Your task to perform on an android device: Open Chrome and go to the settings page Image 0: 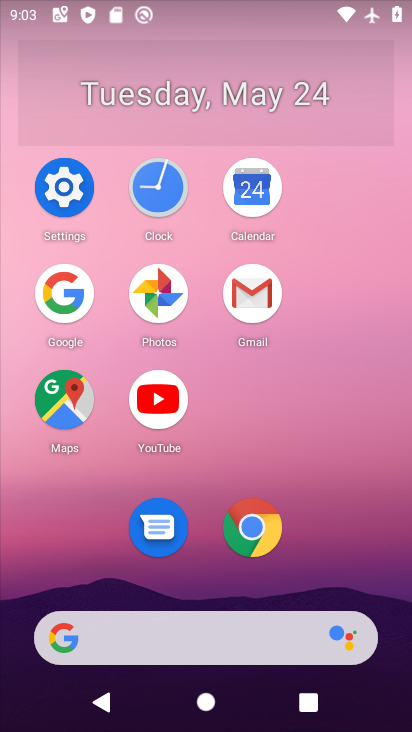
Step 0: click (249, 516)
Your task to perform on an android device: Open Chrome and go to the settings page Image 1: 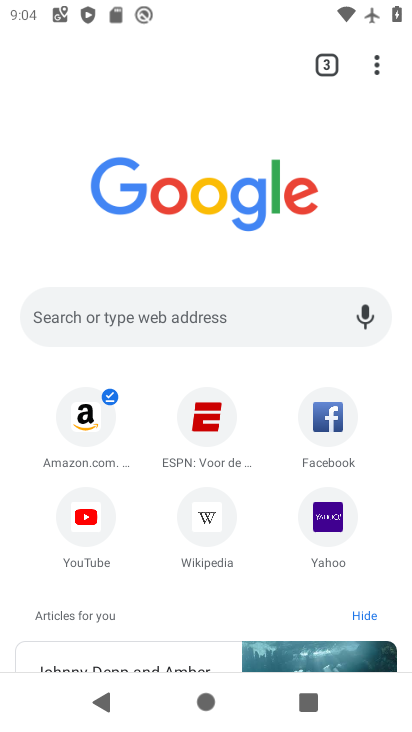
Step 1: click (390, 60)
Your task to perform on an android device: Open Chrome and go to the settings page Image 2: 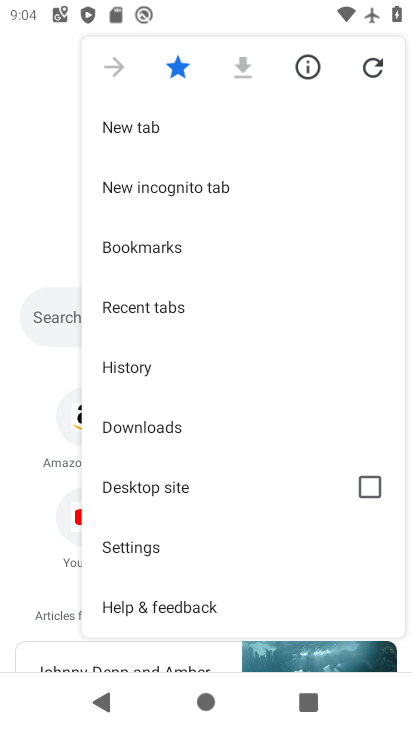
Step 2: click (233, 554)
Your task to perform on an android device: Open Chrome and go to the settings page Image 3: 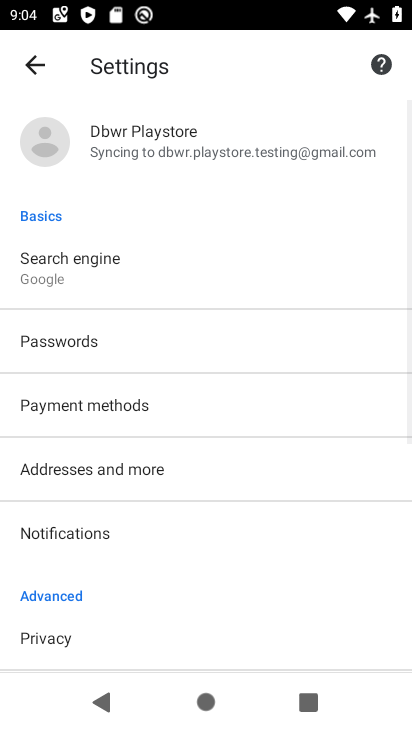
Step 3: task complete